Your task to perform on an android device: turn off notifications settings in the gmail app Image 0: 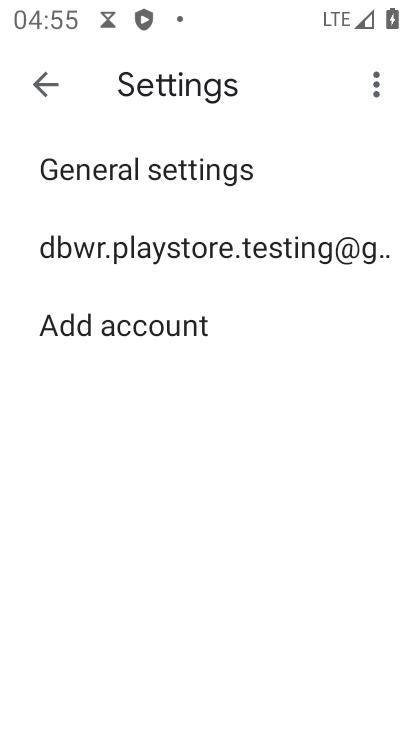
Step 0: press home button
Your task to perform on an android device: turn off notifications settings in the gmail app Image 1: 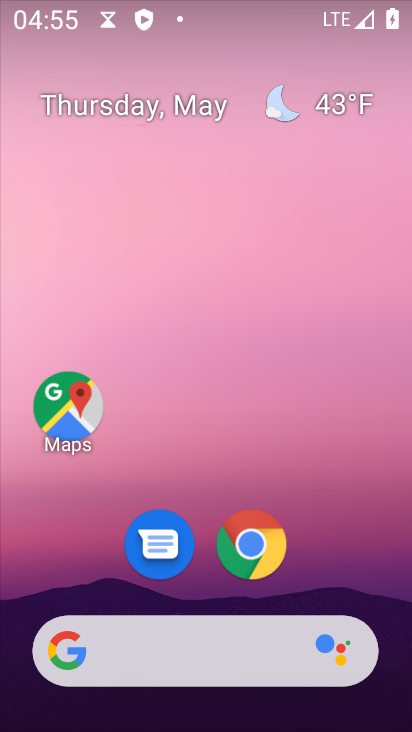
Step 1: drag from (324, 585) to (276, 76)
Your task to perform on an android device: turn off notifications settings in the gmail app Image 2: 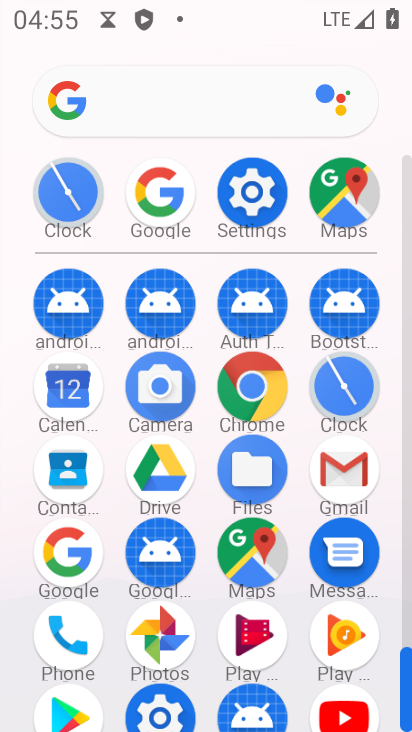
Step 2: click (342, 449)
Your task to perform on an android device: turn off notifications settings in the gmail app Image 3: 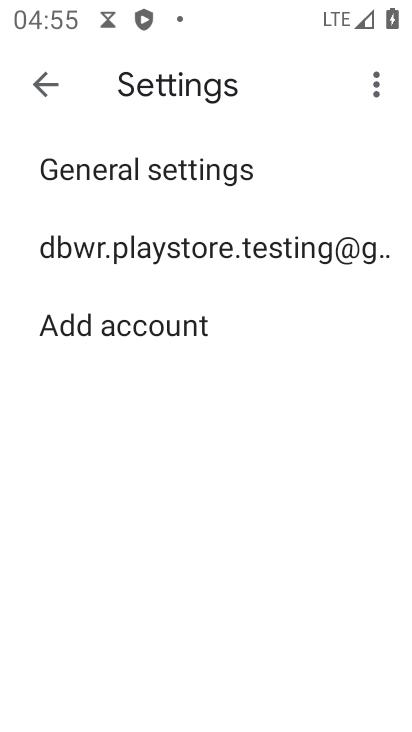
Step 3: click (100, 235)
Your task to perform on an android device: turn off notifications settings in the gmail app Image 4: 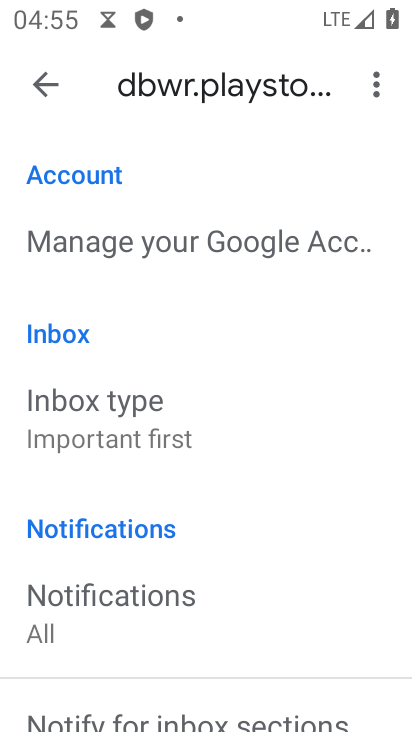
Step 4: drag from (178, 599) to (239, 261)
Your task to perform on an android device: turn off notifications settings in the gmail app Image 5: 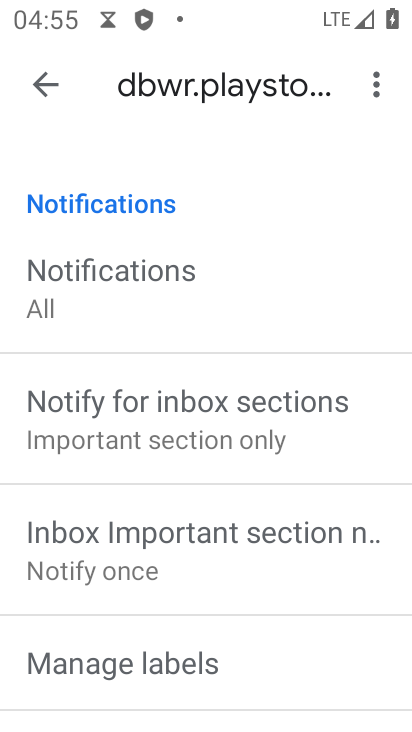
Step 5: drag from (140, 667) to (141, 433)
Your task to perform on an android device: turn off notifications settings in the gmail app Image 6: 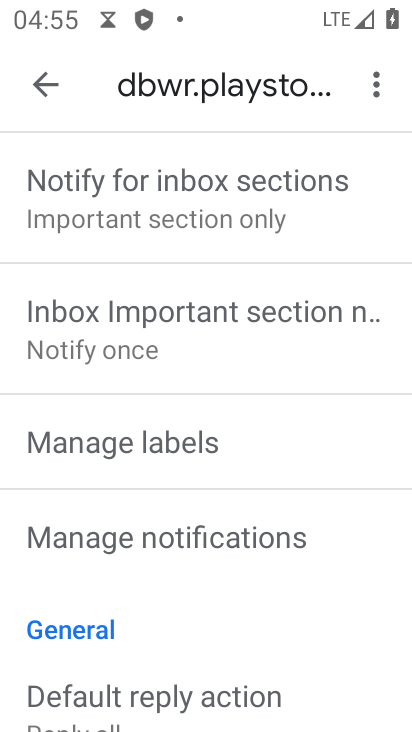
Step 6: click (139, 549)
Your task to perform on an android device: turn off notifications settings in the gmail app Image 7: 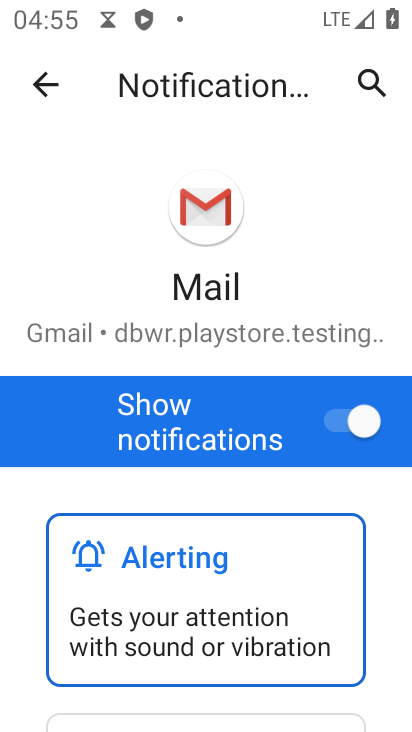
Step 7: click (335, 444)
Your task to perform on an android device: turn off notifications settings in the gmail app Image 8: 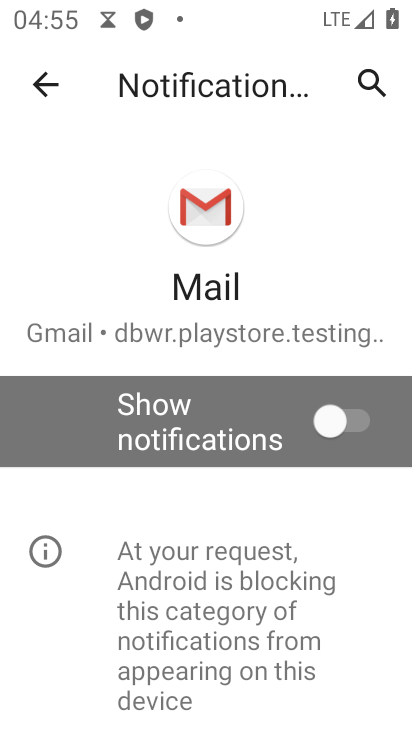
Step 8: task complete